Your task to perform on an android device: Open the phone app and click the voicemail tab. Image 0: 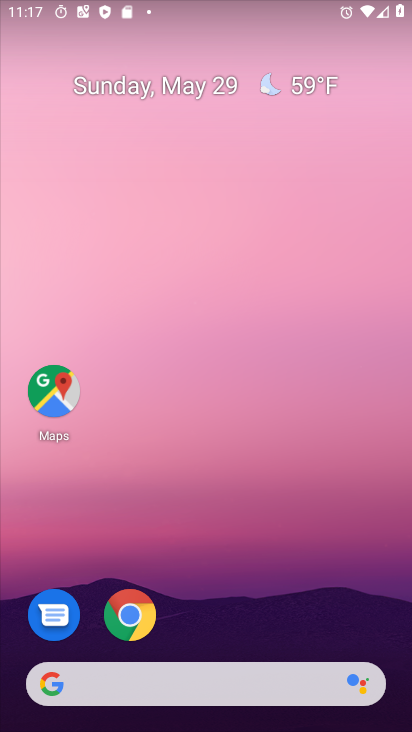
Step 0: drag from (244, 618) to (244, 28)
Your task to perform on an android device: Open the phone app and click the voicemail tab. Image 1: 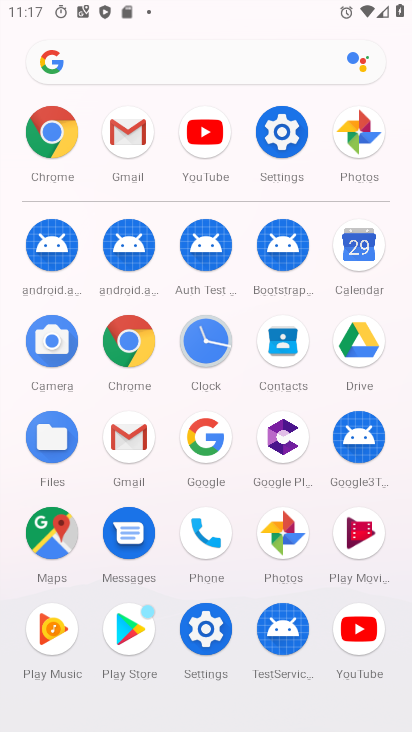
Step 1: click (209, 530)
Your task to perform on an android device: Open the phone app and click the voicemail tab. Image 2: 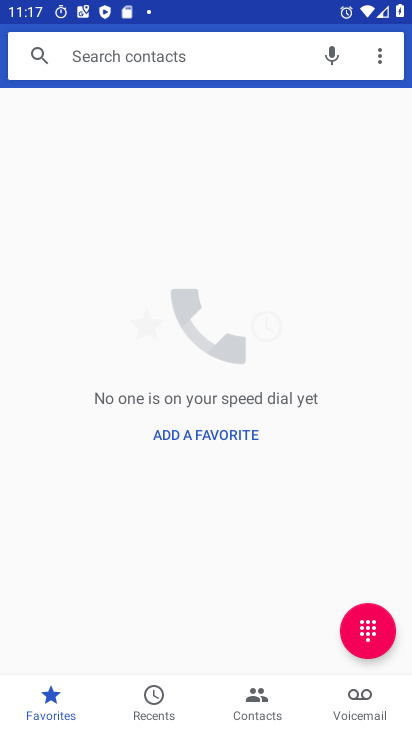
Step 2: click (357, 721)
Your task to perform on an android device: Open the phone app and click the voicemail tab. Image 3: 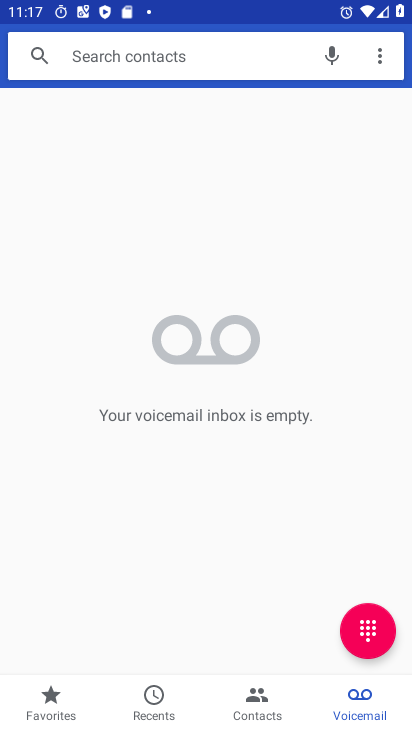
Step 3: task complete